Your task to perform on an android device: Open settings on Google Maps Image 0: 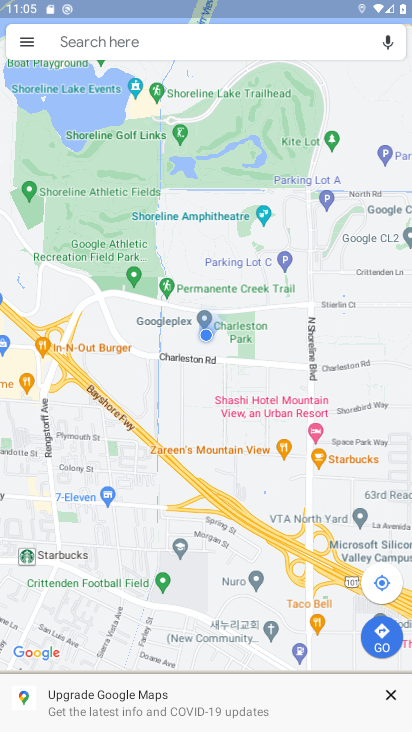
Step 0: click (19, 46)
Your task to perform on an android device: Open settings on Google Maps Image 1: 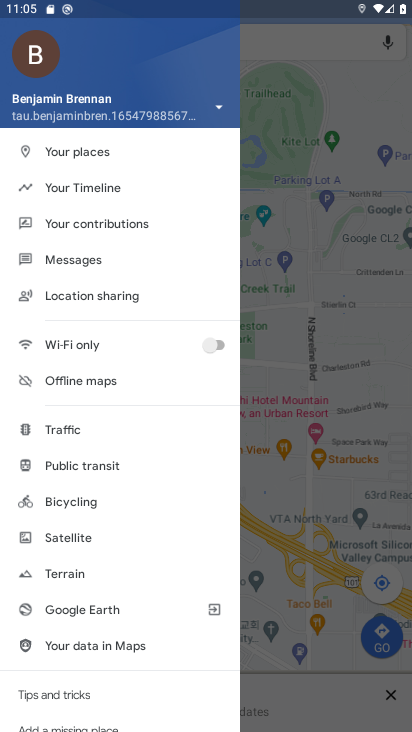
Step 1: drag from (162, 612) to (154, 314)
Your task to perform on an android device: Open settings on Google Maps Image 2: 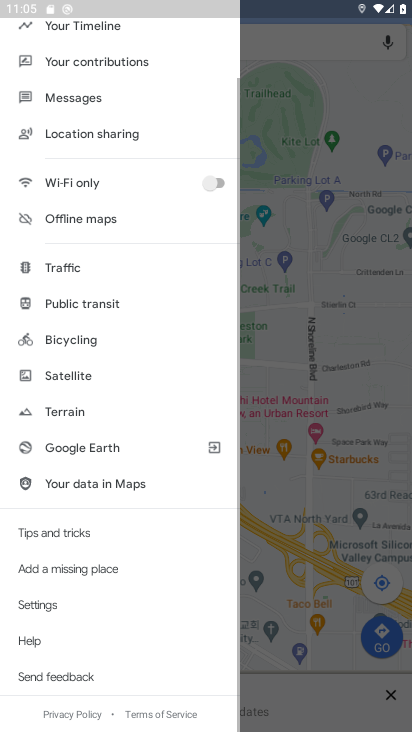
Step 2: click (39, 607)
Your task to perform on an android device: Open settings on Google Maps Image 3: 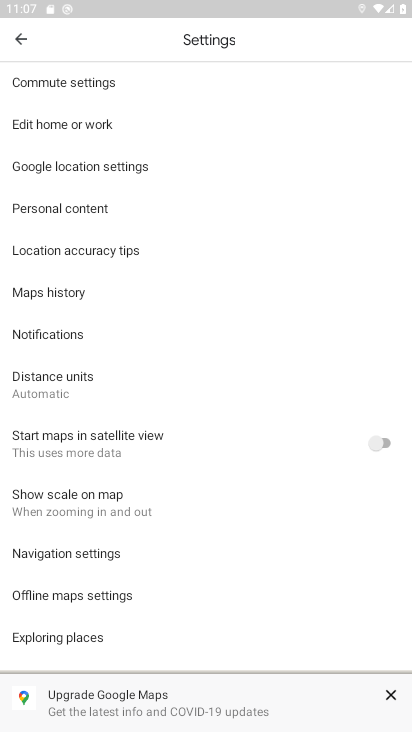
Step 3: task complete